Your task to perform on an android device: empty trash in the gmail app Image 0: 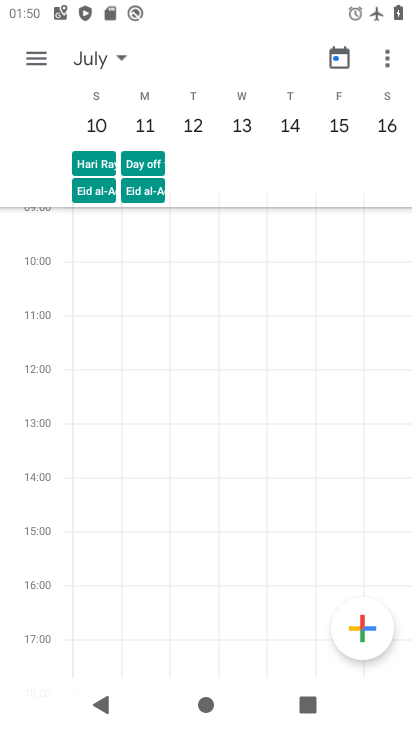
Step 0: press home button
Your task to perform on an android device: empty trash in the gmail app Image 1: 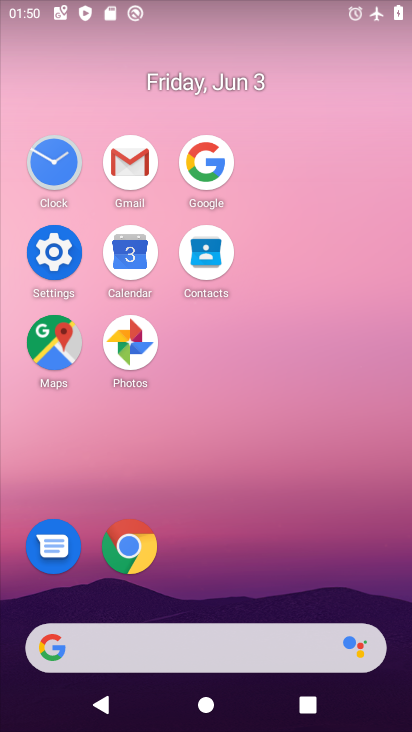
Step 1: click (133, 176)
Your task to perform on an android device: empty trash in the gmail app Image 2: 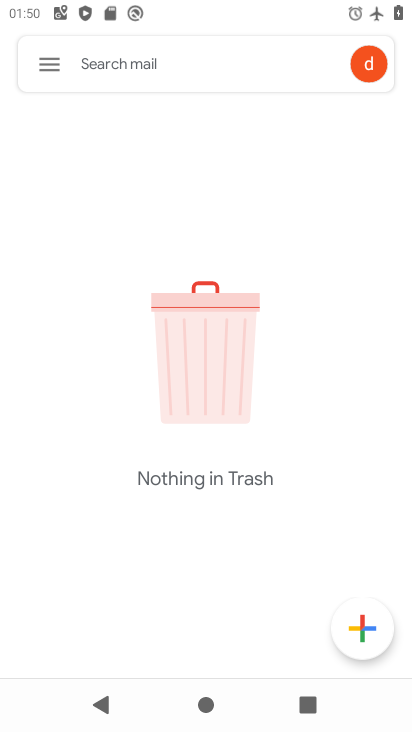
Step 2: click (65, 82)
Your task to perform on an android device: empty trash in the gmail app Image 3: 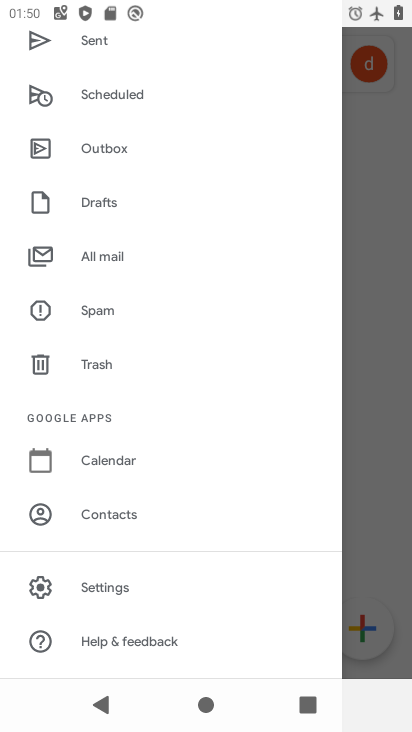
Step 3: drag from (248, 247) to (208, 551)
Your task to perform on an android device: empty trash in the gmail app Image 4: 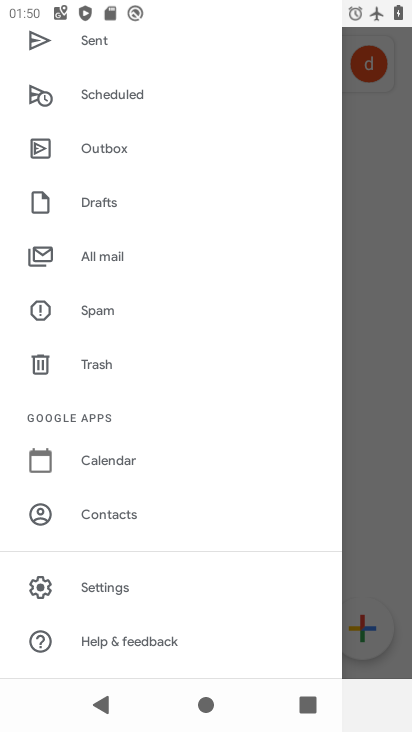
Step 4: drag from (149, 183) to (181, 599)
Your task to perform on an android device: empty trash in the gmail app Image 5: 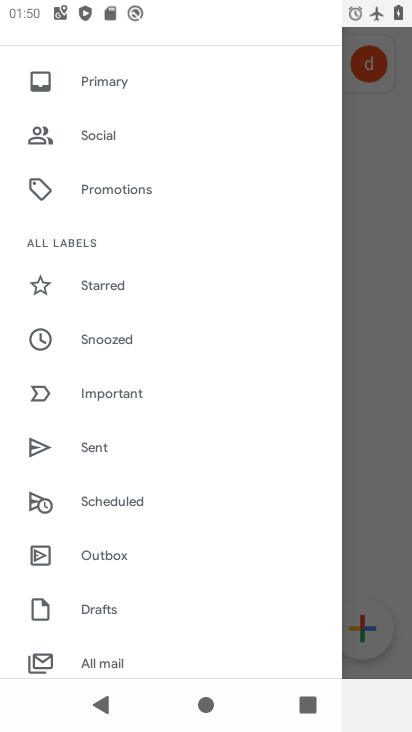
Step 5: click (390, 330)
Your task to perform on an android device: empty trash in the gmail app Image 6: 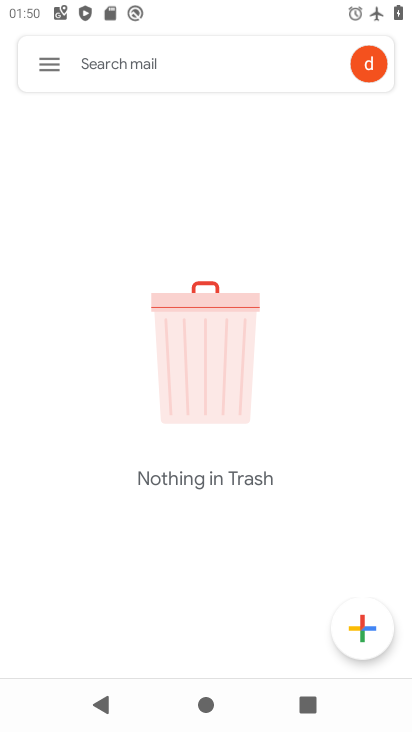
Step 6: task complete